Your task to perform on an android device: Open Google Chrome and open the bookmarks view Image 0: 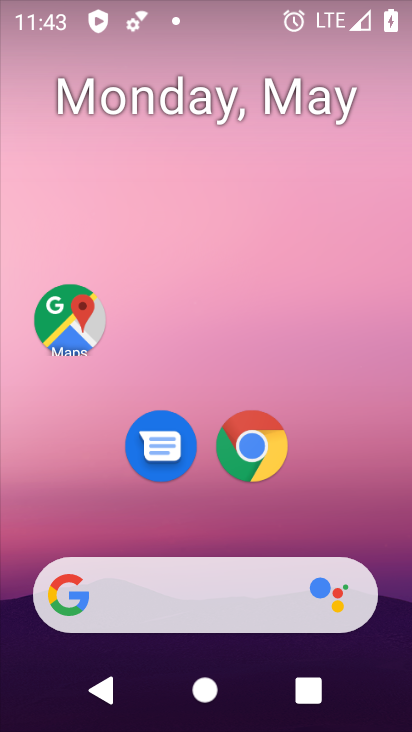
Step 0: click (256, 448)
Your task to perform on an android device: Open Google Chrome and open the bookmarks view Image 1: 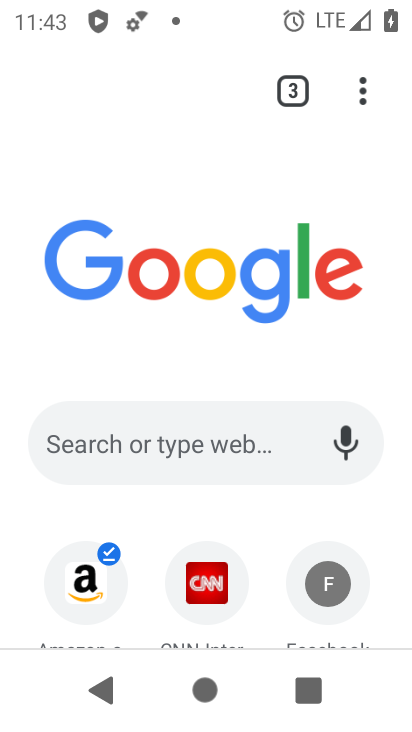
Step 1: click (369, 91)
Your task to perform on an android device: Open Google Chrome and open the bookmarks view Image 2: 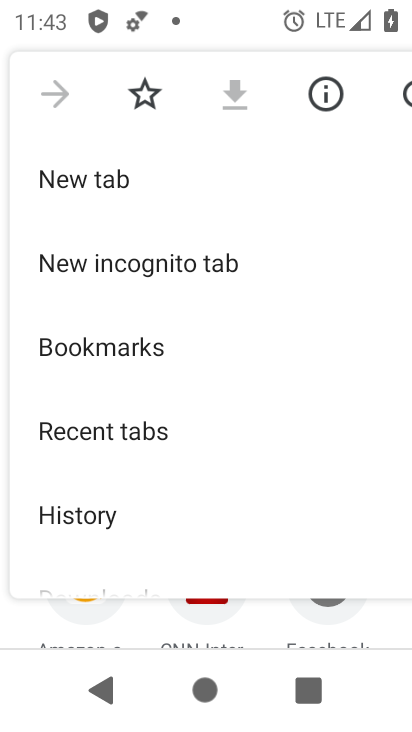
Step 2: click (124, 338)
Your task to perform on an android device: Open Google Chrome and open the bookmarks view Image 3: 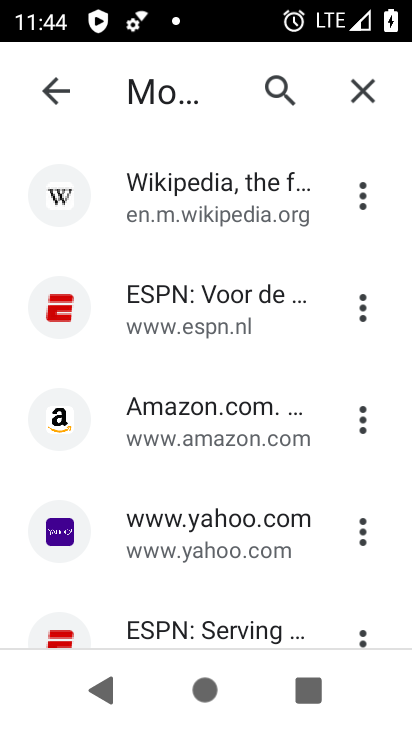
Step 3: click (359, 189)
Your task to perform on an android device: Open Google Chrome and open the bookmarks view Image 4: 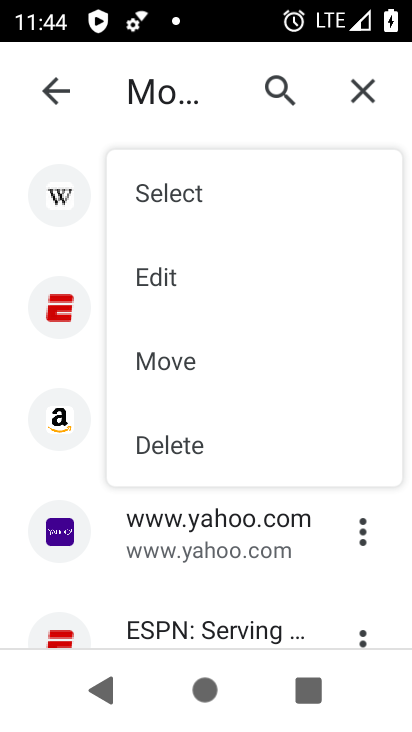
Step 4: click (184, 272)
Your task to perform on an android device: Open Google Chrome and open the bookmarks view Image 5: 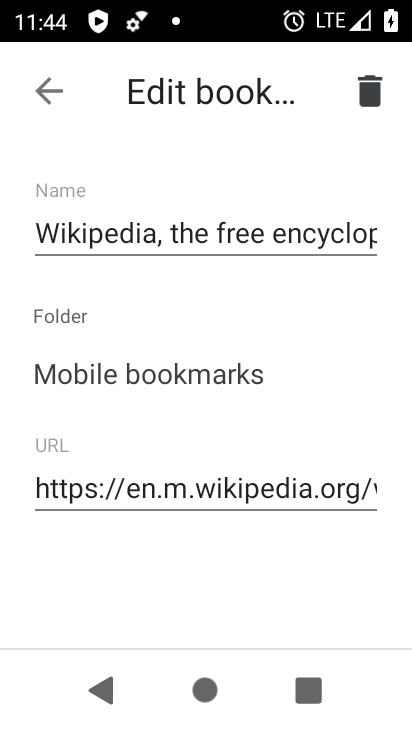
Step 5: task complete